Your task to perform on an android device: toggle notification dots Image 0: 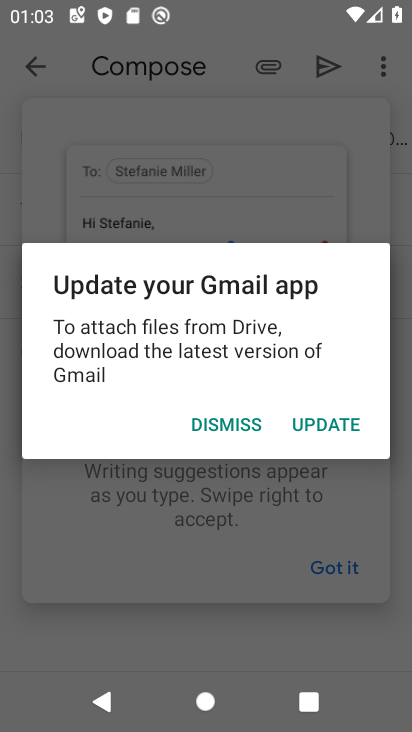
Step 0: press home button
Your task to perform on an android device: toggle notification dots Image 1: 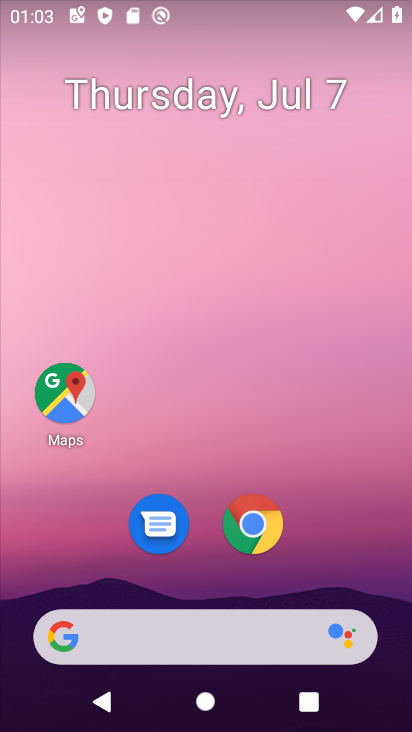
Step 1: drag from (250, 461) to (341, 35)
Your task to perform on an android device: toggle notification dots Image 2: 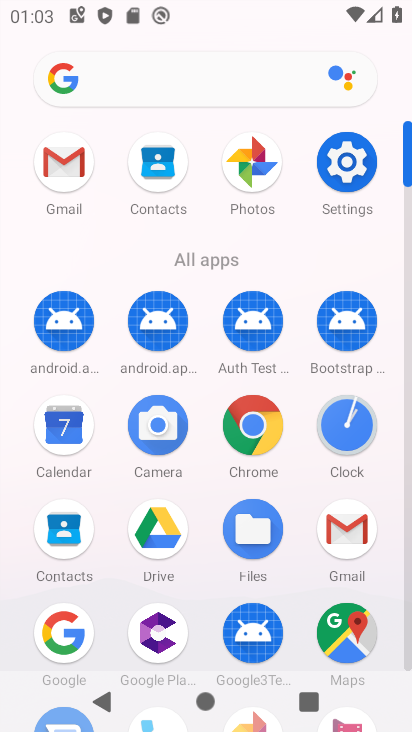
Step 2: click (365, 158)
Your task to perform on an android device: toggle notification dots Image 3: 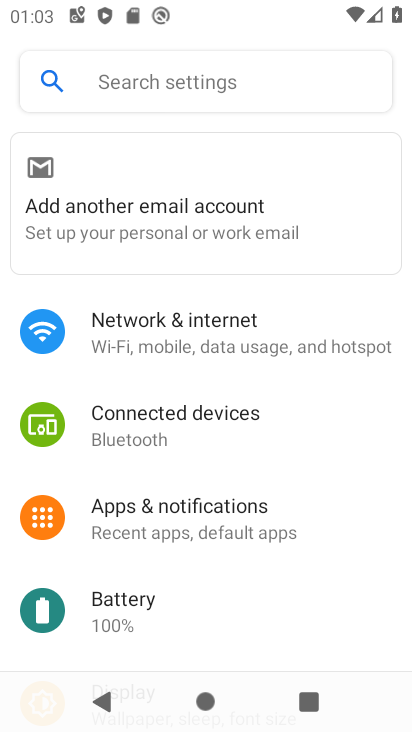
Step 3: click (207, 510)
Your task to perform on an android device: toggle notification dots Image 4: 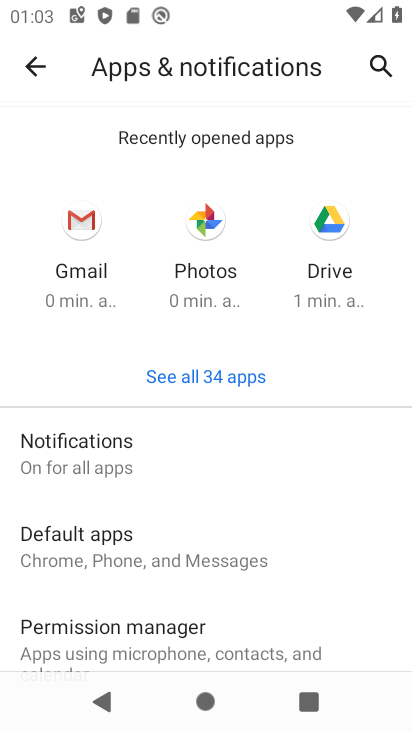
Step 4: click (109, 465)
Your task to perform on an android device: toggle notification dots Image 5: 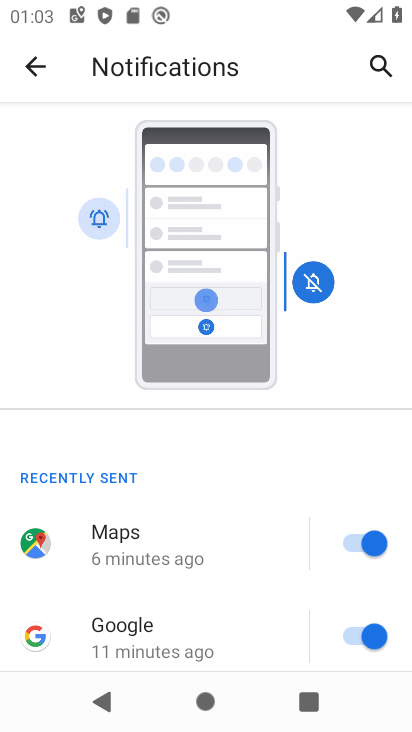
Step 5: drag from (229, 604) to (288, 124)
Your task to perform on an android device: toggle notification dots Image 6: 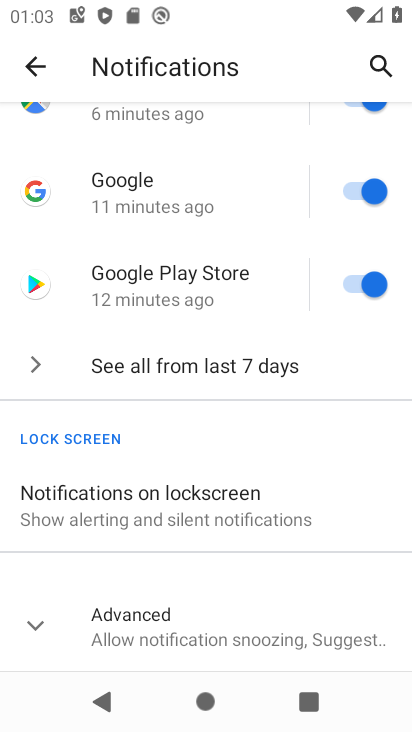
Step 6: click (32, 627)
Your task to perform on an android device: toggle notification dots Image 7: 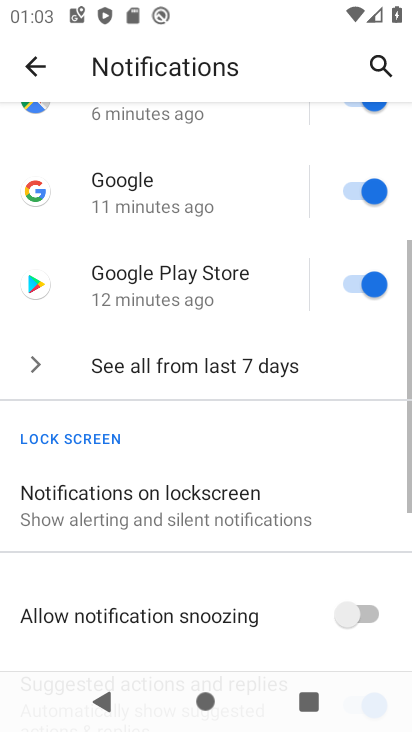
Step 7: drag from (229, 525) to (273, 104)
Your task to perform on an android device: toggle notification dots Image 8: 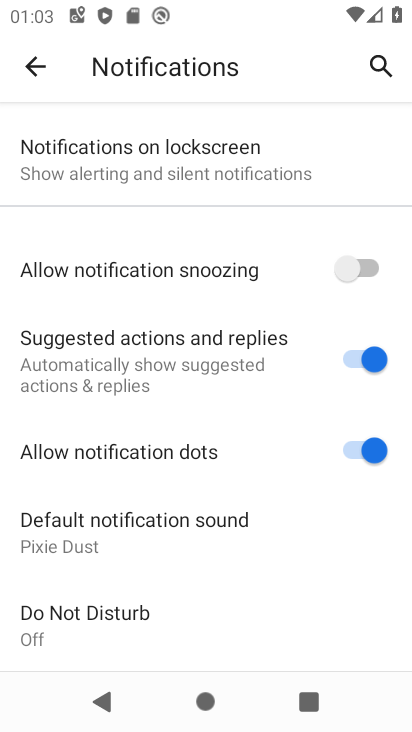
Step 8: click (362, 446)
Your task to perform on an android device: toggle notification dots Image 9: 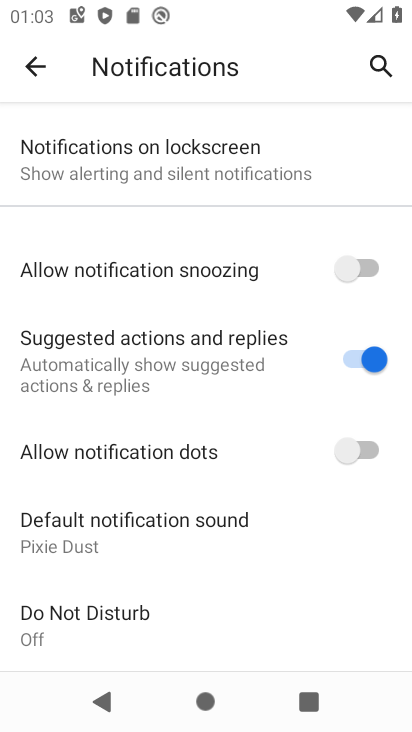
Step 9: task complete